Your task to perform on an android device: allow notifications from all sites in the chrome app Image 0: 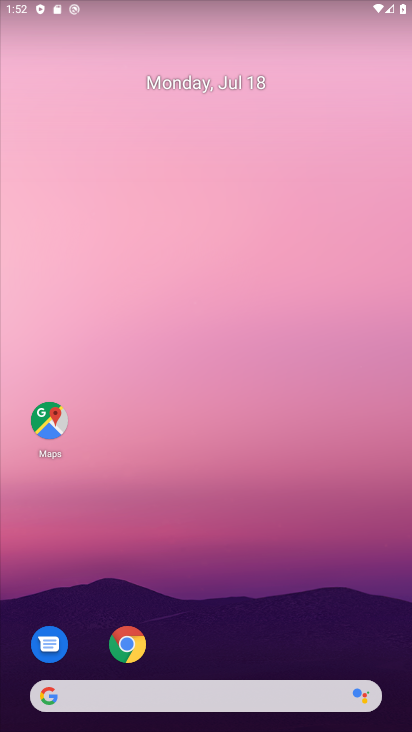
Step 0: drag from (266, 585) to (179, 105)
Your task to perform on an android device: allow notifications from all sites in the chrome app Image 1: 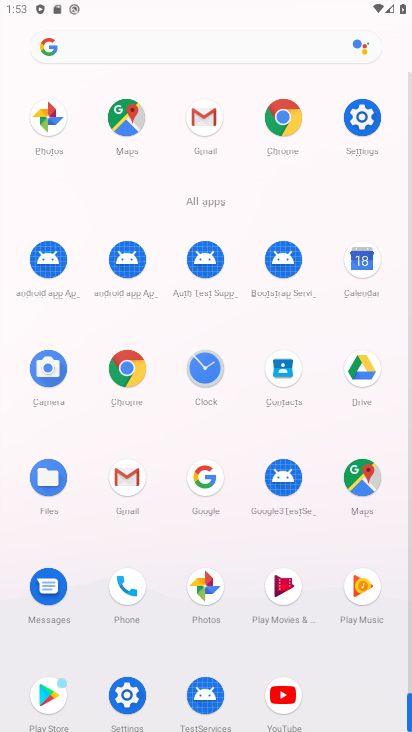
Step 1: click (284, 126)
Your task to perform on an android device: allow notifications from all sites in the chrome app Image 2: 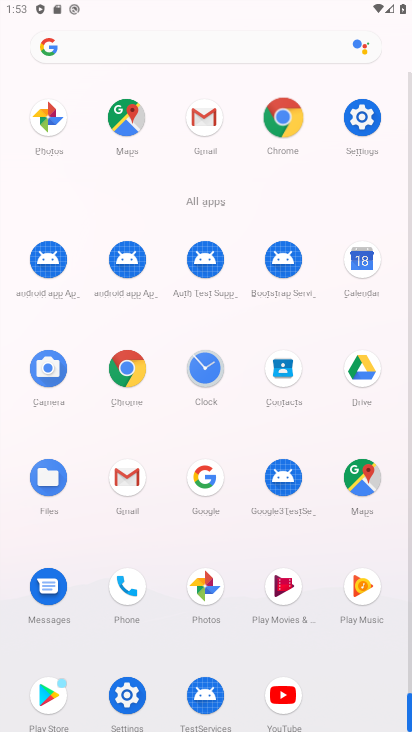
Step 2: click (284, 126)
Your task to perform on an android device: allow notifications from all sites in the chrome app Image 3: 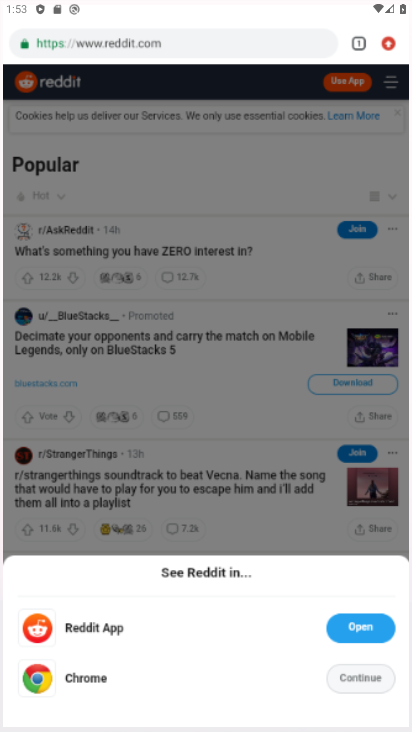
Step 3: click (284, 123)
Your task to perform on an android device: allow notifications from all sites in the chrome app Image 4: 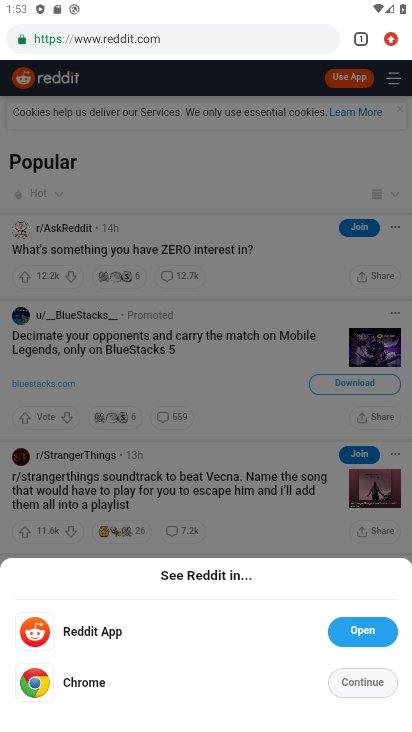
Step 4: click (362, 630)
Your task to perform on an android device: allow notifications from all sites in the chrome app Image 5: 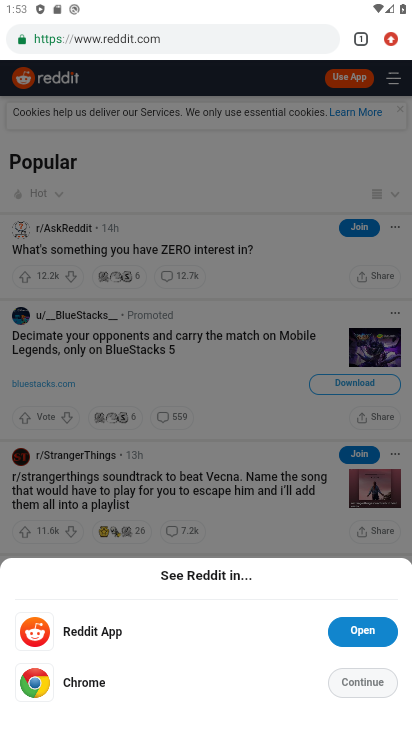
Step 5: click (364, 631)
Your task to perform on an android device: allow notifications from all sites in the chrome app Image 6: 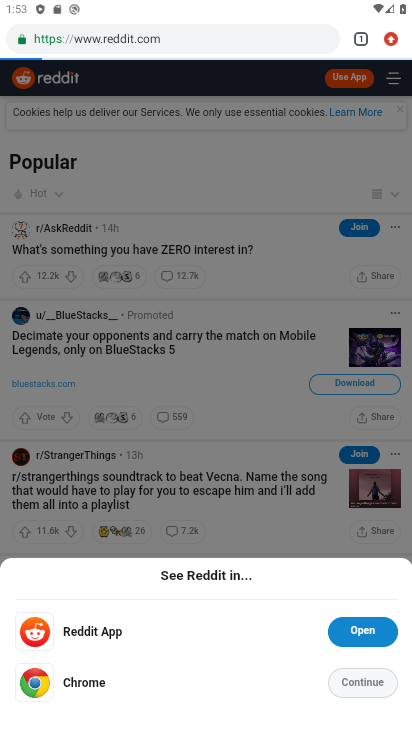
Step 6: click (369, 627)
Your task to perform on an android device: allow notifications from all sites in the chrome app Image 7: 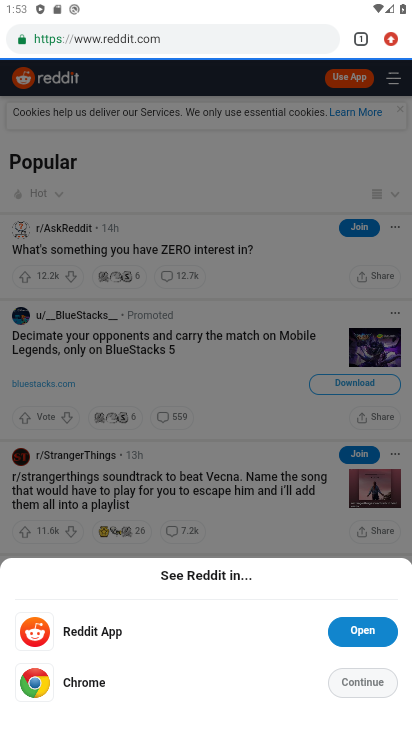
Step 7: click (370, 627)
Your task to perform on an android device: allow notifications from all sites in the chrome app Image 8: 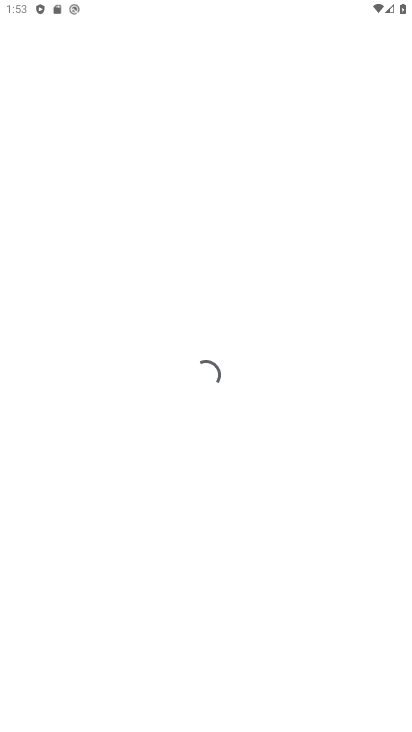
Step 8: press back button
Your task to perform on an android device: allow notifications from all sites in the chrome app Image 9: 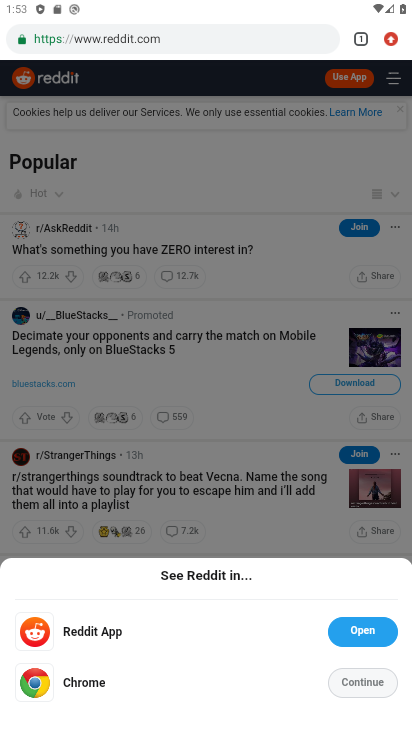
Step 9: press back button
Your task to perform on an android device: allow notifications from all sites in the chrome app Image 10: 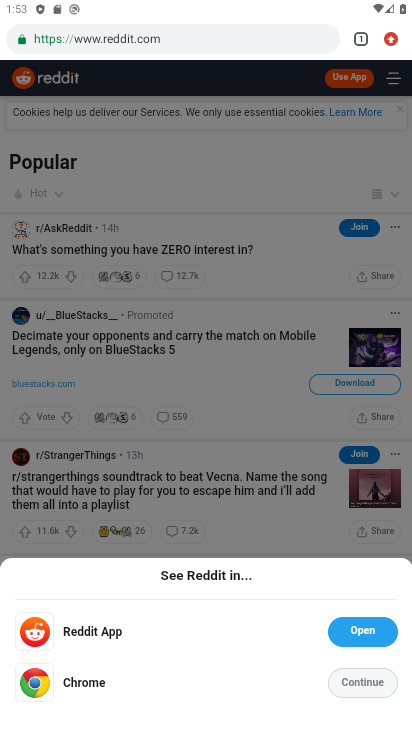
Step 10: press back button
Your task to perform on an android device: allow notifications from all sites in the chrome app Image 11: 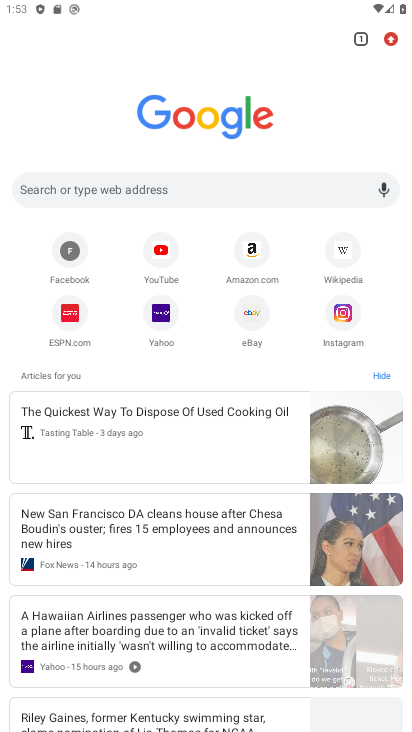
Step 11: press back button
Your task to perform on an android device: allow notifications from all sites in the chrome app Image 12: 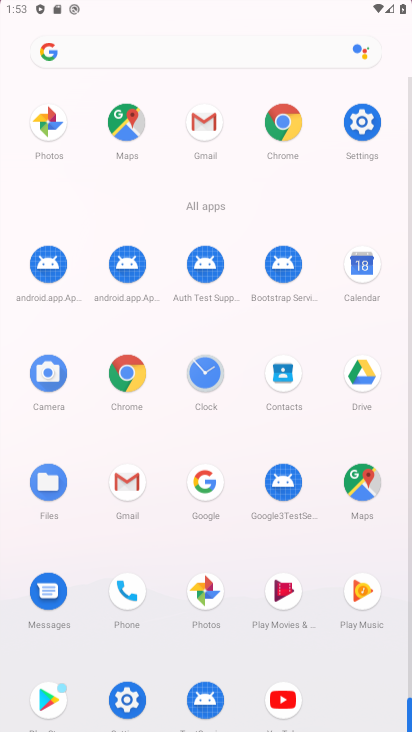
Step 12: press home button
Your task to perform on an android device: allow notifications from all sites in the chrome app Image 13: 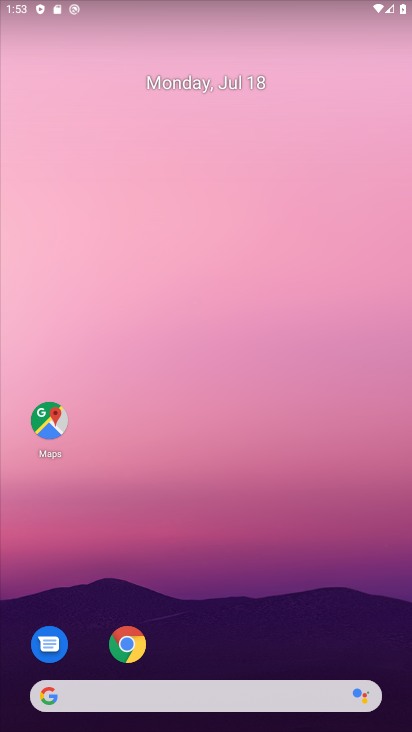
Step 13: drag from (272, 595) to (188, 30)
Your task to perform on an android device: allow notifications from all sites in the chrome app Image 14: 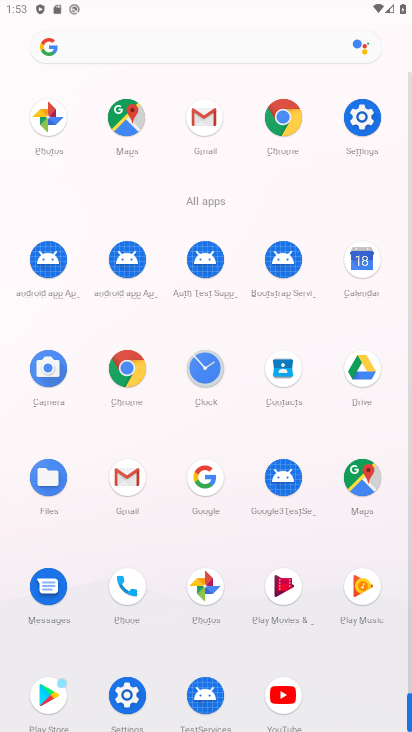
Step 14: drag from (226, 217) to (197, 9)
Your task to perform on an android device: allow notifications from all sites in the chrome app Image 15: 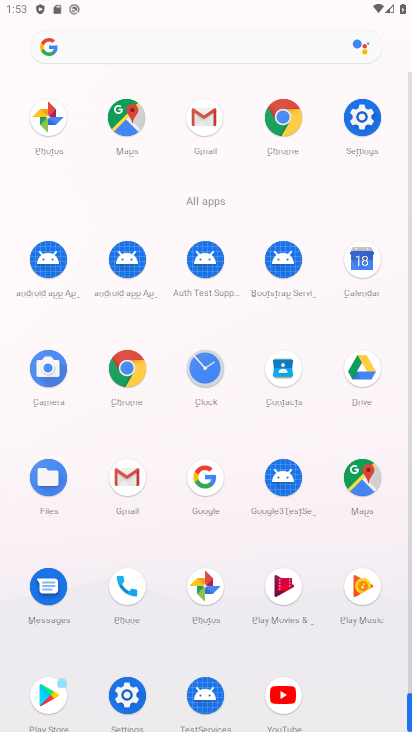
Step 15: click (284, 127)
Your task to perform on an android device: allow notifications from all sites in the chrome app Image 16: 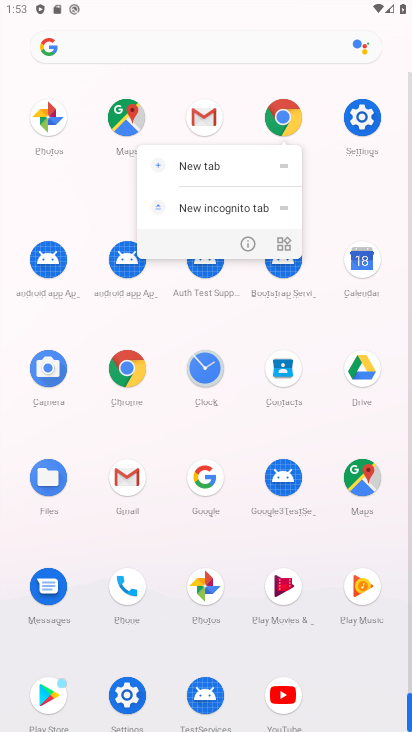
Step 16: click (284, 127)
Your task to perform on an android device: allow notifications from all sites in the chrome app Image 17: 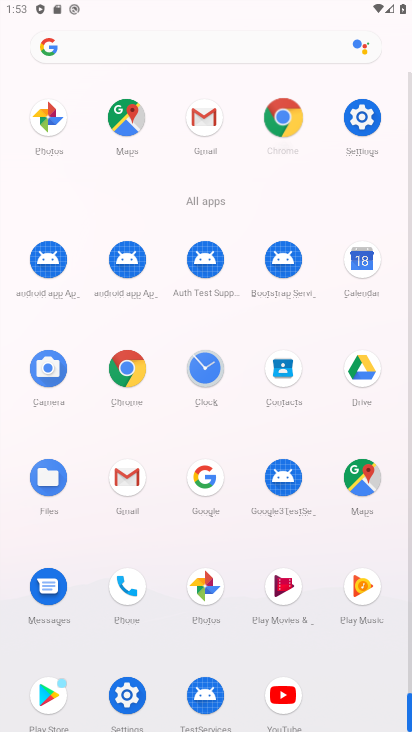
Step 17: click (283, 126)
Your task to perform on an android device: allow notifications from all sites in the chrome app Image 18: 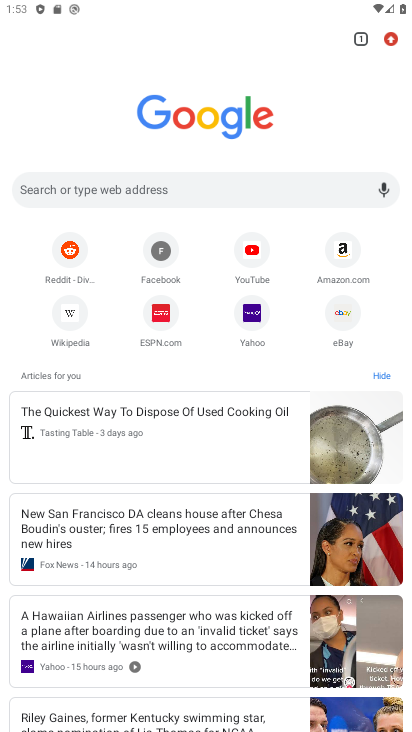
Step 18: drag from (386, 37) to (242, 358)
Your task to perform on an android device: allow notifications from all sites in the chrome app Image 19: 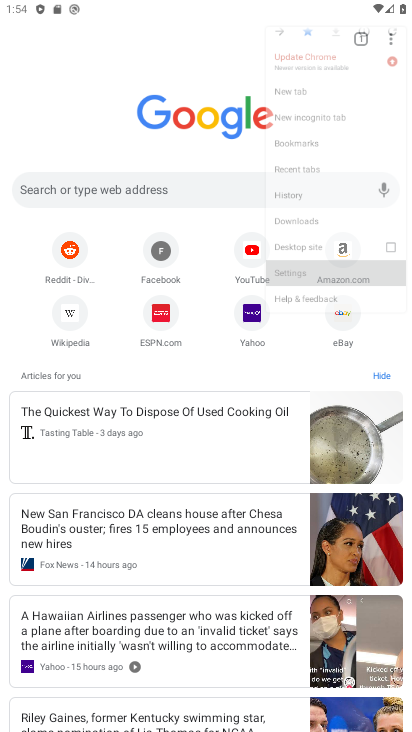
Step 19: click (240, 365)
Your task to perform on an android device: allow notifications from all sites in the chrome app Image 20: 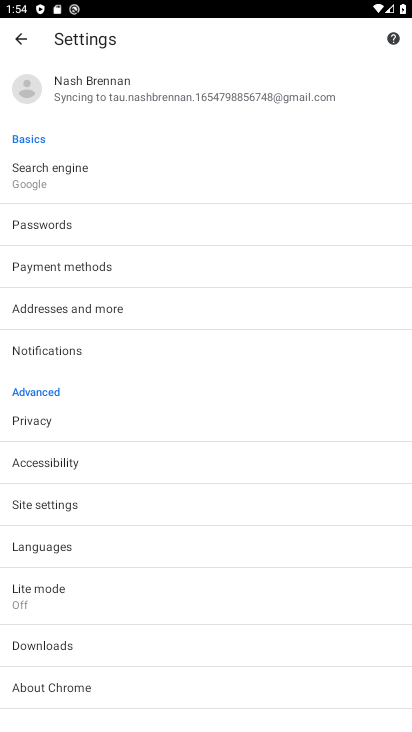
Step 20: click (27, 497)
Your task to perform on an android device: allow notifications from all sites in the chrome app Image 21: 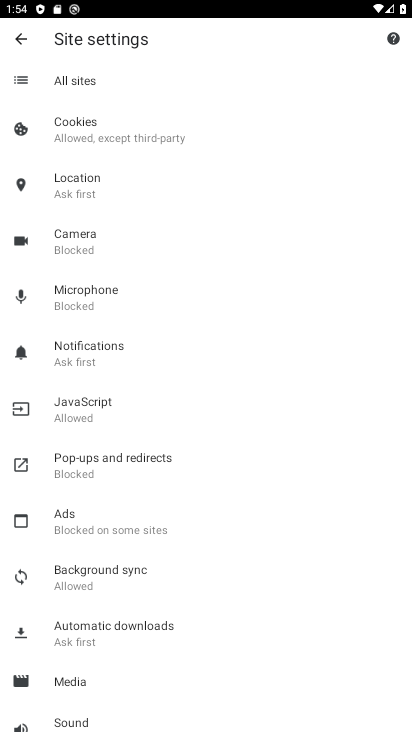
Step 21: click (76, 79)
Your task to perform on an android device: allow notifications from all sites in the chrome app Image 22: 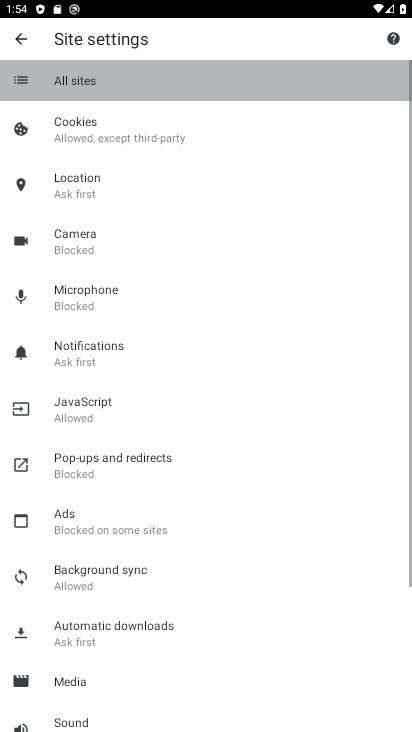
Step 22: click (76, 79)
Your task to perform on an android device: allow notifications from all sites in the chrome app Image 23: 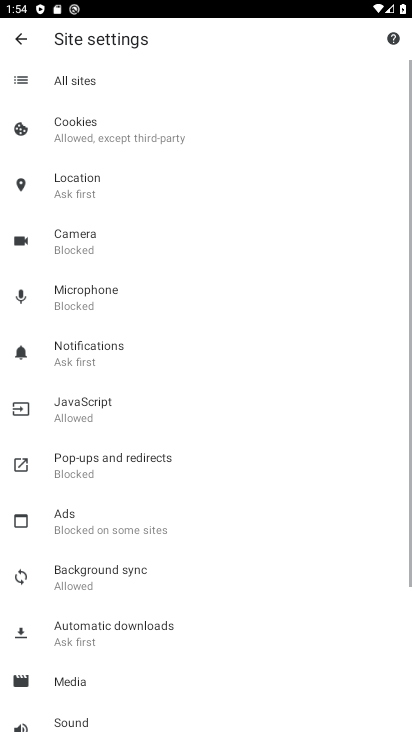
Step 23: click (72, 83)
Your task to perform on an android device: allow notifications from all sites in the chrome app Image 24: 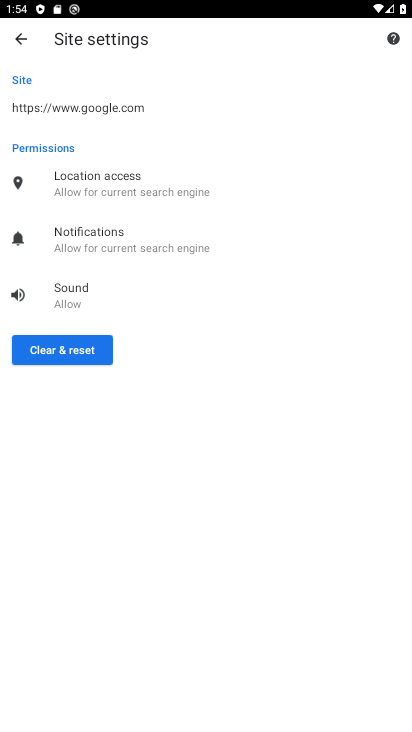
Step 24: click (77, 245)
Your task to perform on an android device: allow notifications from all sites in the chrome app Image 25: 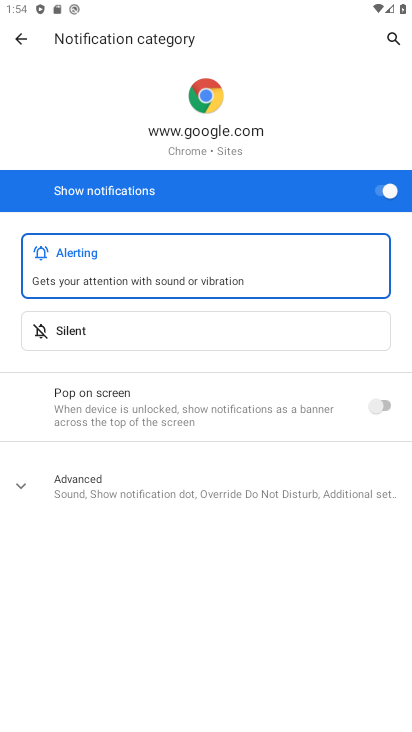
Step 25: click (24, 45)
Your task to perform on an android device: allow notifications from all sites in the chrome app Image 26: 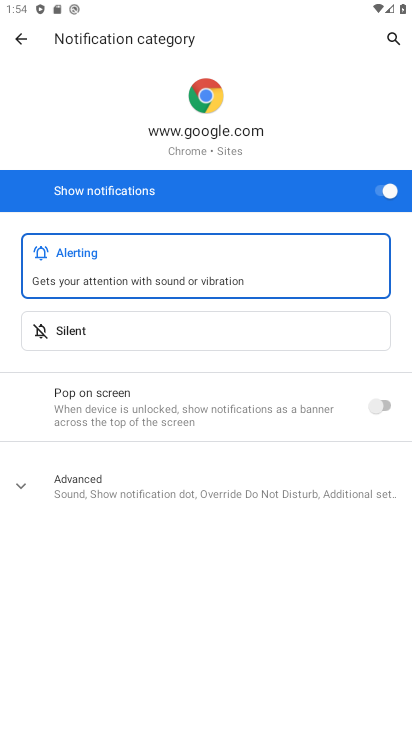
Step 26: click (20, 35)
Your task to perform on an android device: allow notifications from all sites in the chrome app Image 27: 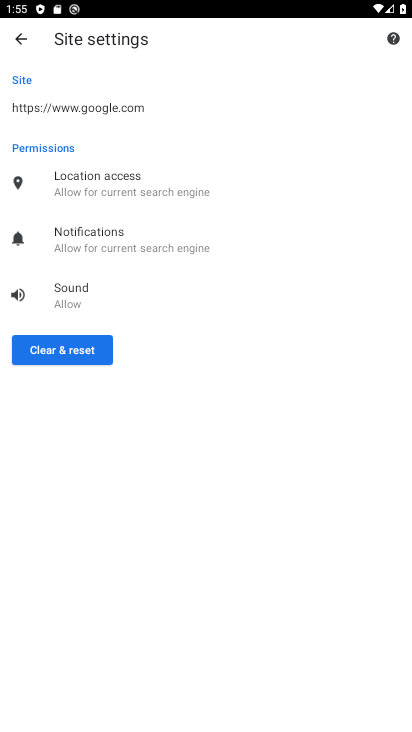
Step 27: click (84, 252)
Your task to perform on an android device: allow notifications from all sites in the chrome app Image 28: 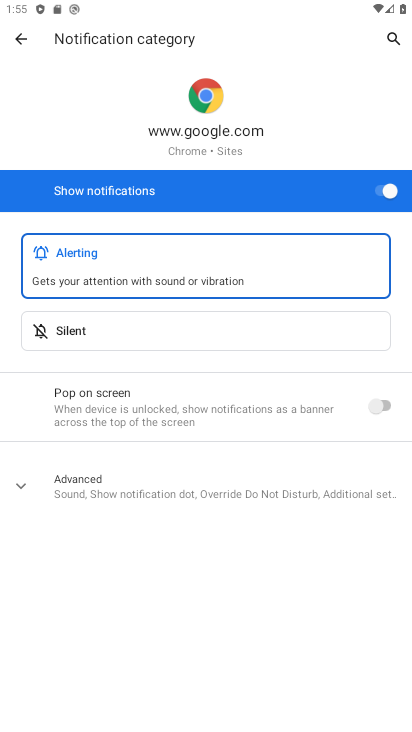
Step 28: click (16, 38)
Your task to perform on an android device: allow notifications from all sites in the chrome app Image 29: 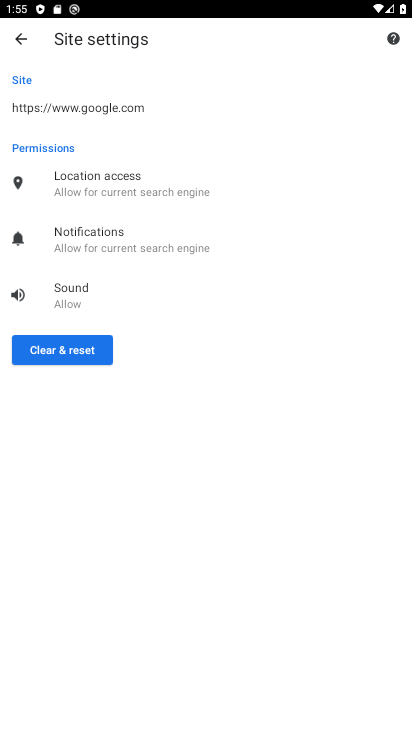
Step 29: click (85, 238)
Your task to perform on an android device: allow notifications from all sites in the chrome app Image 30: 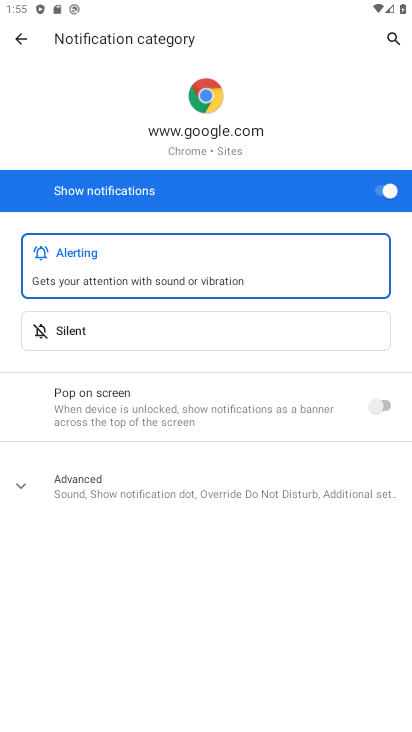
Step 30: task complete